Your task to perform on an android device: turn on sleep mode Image 0: 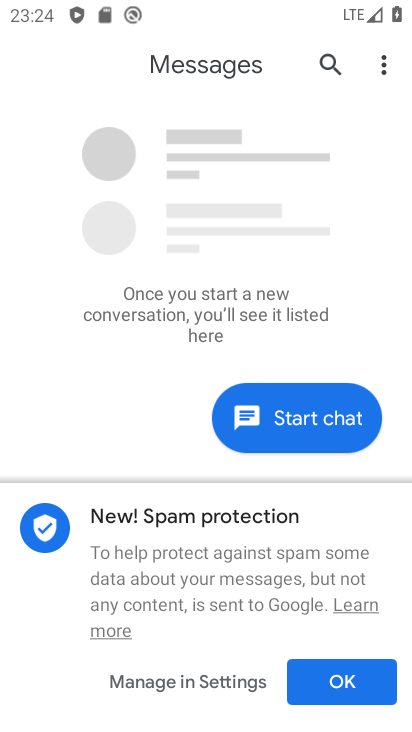
Step 0: press home button
Your task to perform on an android device: turn on sleep mode Image 1: 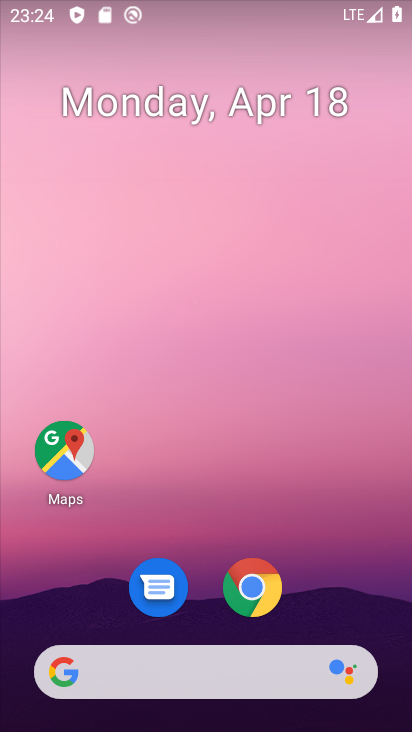
Step 1: drag from (343, 581) to (351, 178)
Your task to perform on an android device: turn on sleep mode Image 2: 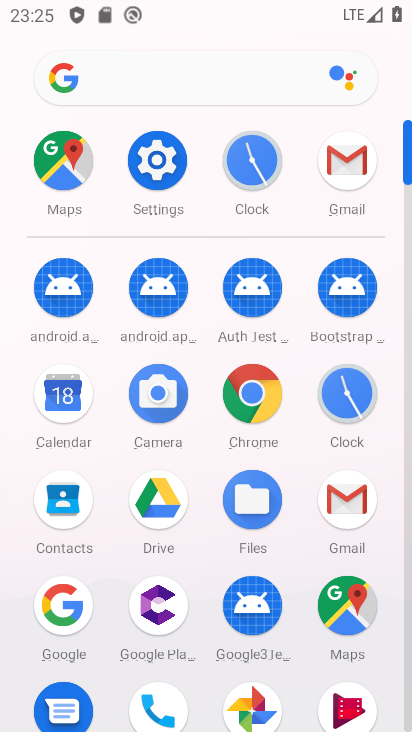
Step 2: click (161, 151)
Your task to perform on an android device: turn on sleep mode Image 3: 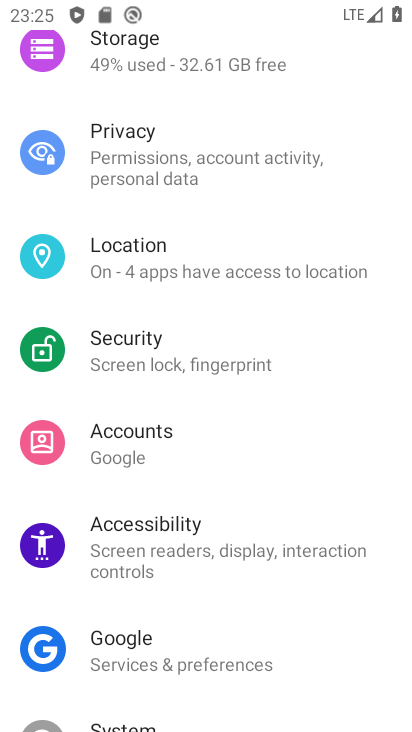
Step 3: drag from (294, 136) to (299, 548)
Your task to perform on an android device: turn on sleep mode Image 4: 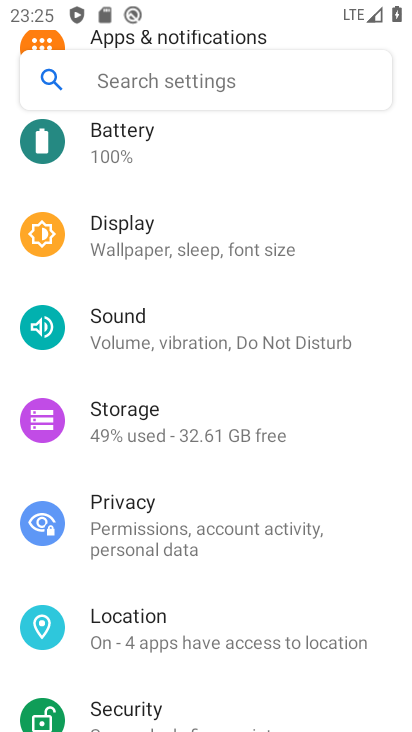
Step 4: click (275, 91)
Your task to perform on an android device: turn on sleep mode Image 5: 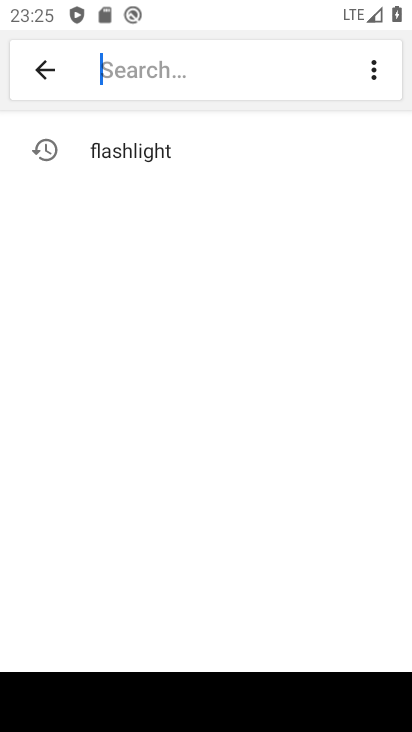
Step 5: type "sleep mode"
Your task to perform on an android device: turn on sleep mode Image 6: 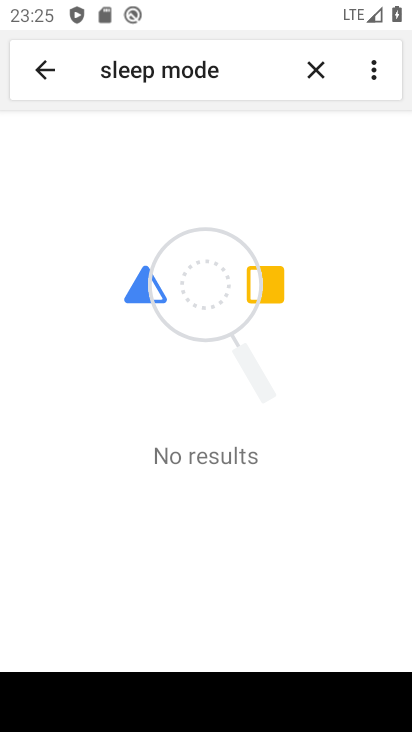
Step 6: task complete